Your task to perform on an android device: turn off translation in the chrome app Image 0: 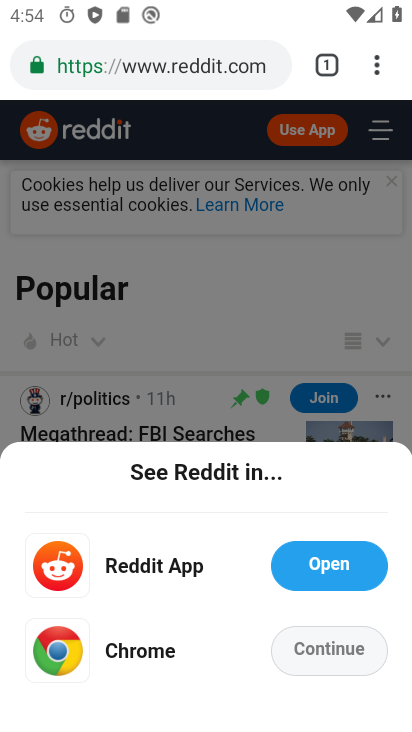
Step 0: press home button
Your task to perform on an android device: turn off translation in the chrome app Image 1: 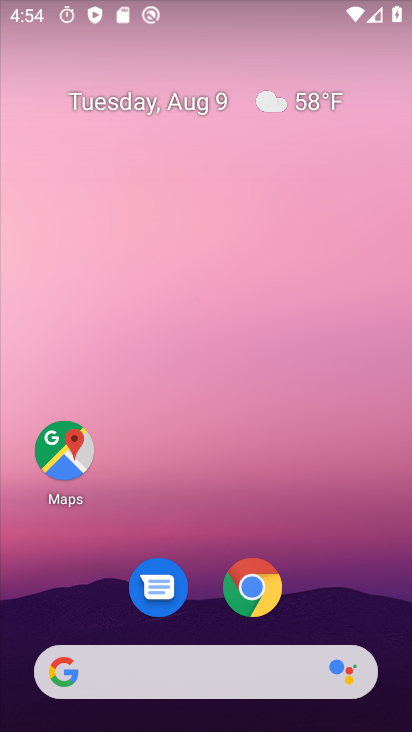
Step 1: click (254, 588)
Your task to perform on an android device: turn off translation in the chrome app Image 2: 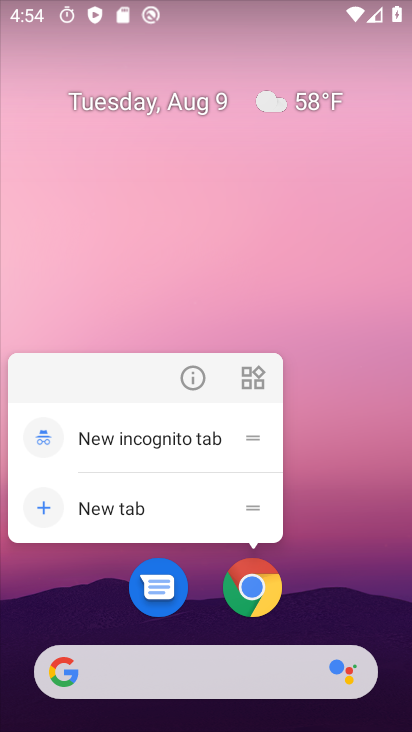
Step 2: click (254, 588)
Your task to perform on an android device: turn off translation in the chrome app Image 3: 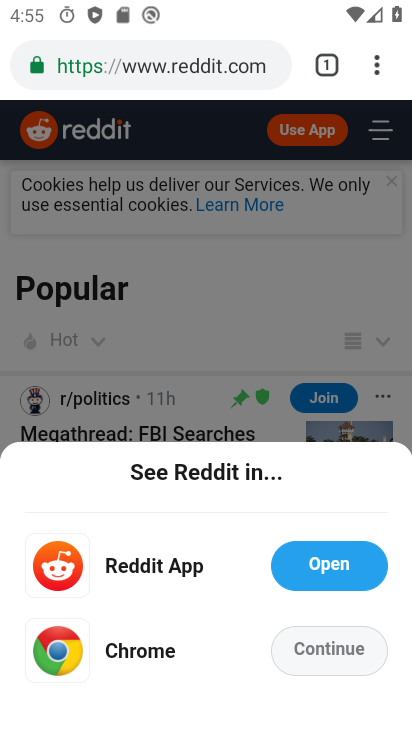
Step 3: drag from (377, 68) to (183, 633)
Your task to perform on an android device: turn off translation in the chrome app Image 4: 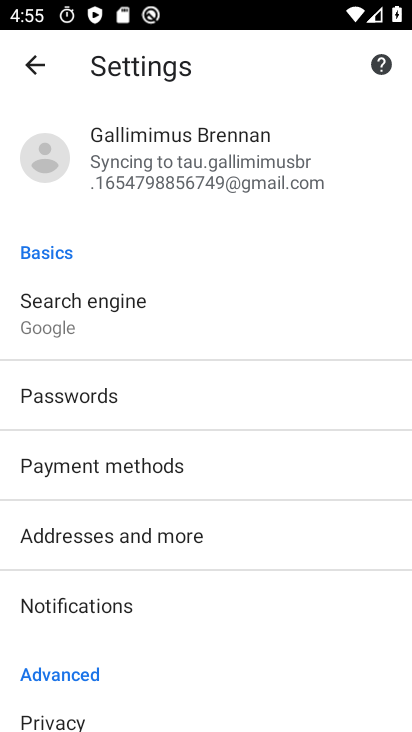
Step 4: drag from (166, 630) to (130, 233)
Your task to perform on an android device: turn off translation in the chrome app Image 5: 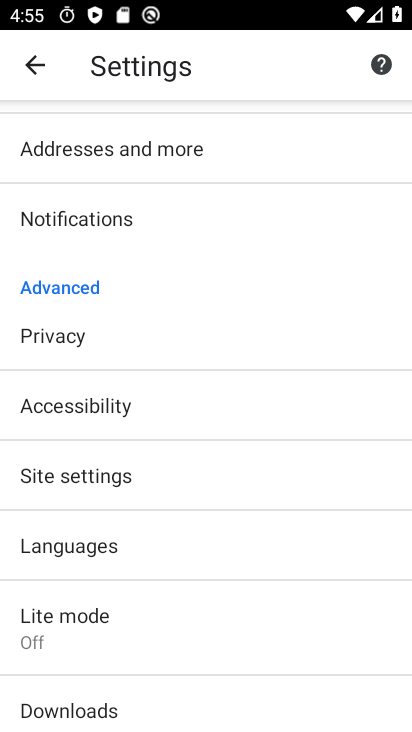
Step 5: click (121, 552)
Your task to perform on an android device: turn off translation in the chrome app Image 6: 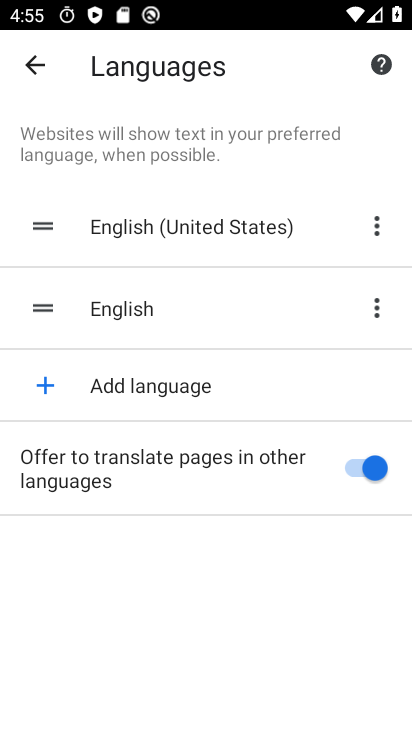
Step 6: click (359, 474)
Your task to perform on an android device: turn off translation in the chrome app Image 7: 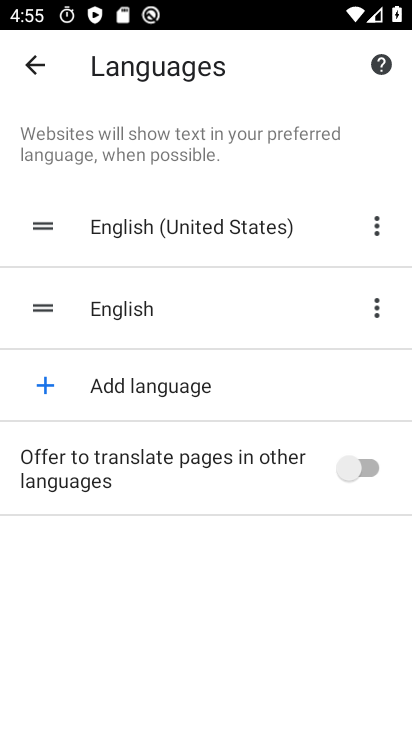
Step 7: task complete